Your task to perform on an android device: Open Youtube and go to "Your channel" Image 0: 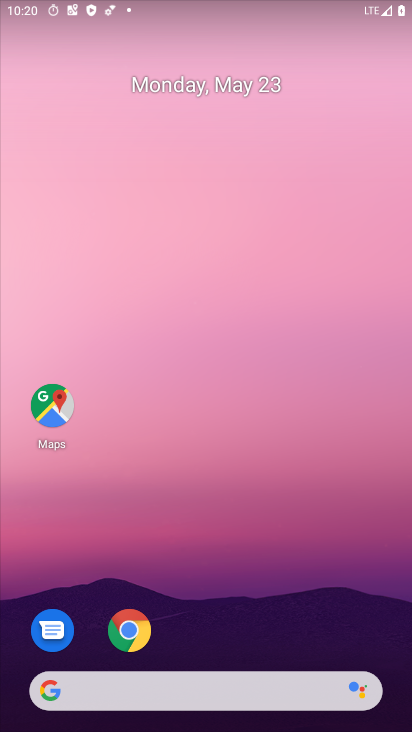
Step 0: drag from (325, 655) to (320, 27)
Your task to perform on an android device: Open Youtube and go to "Your channel" Image 1: 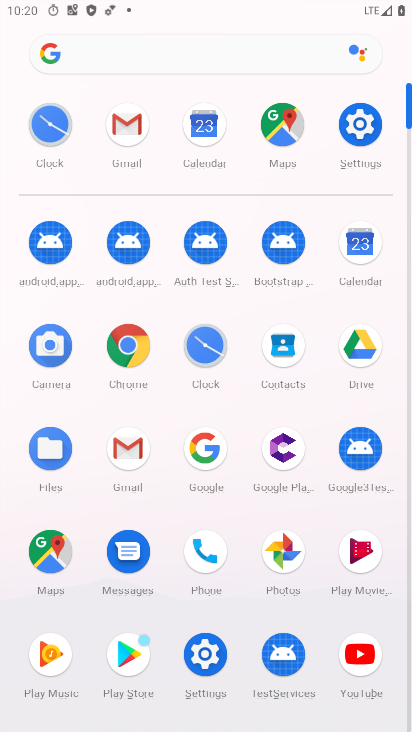
Step 1: click (355, 656)
Your task to perform on an android device: Open Youtube and go to "Your channel" Image 2: 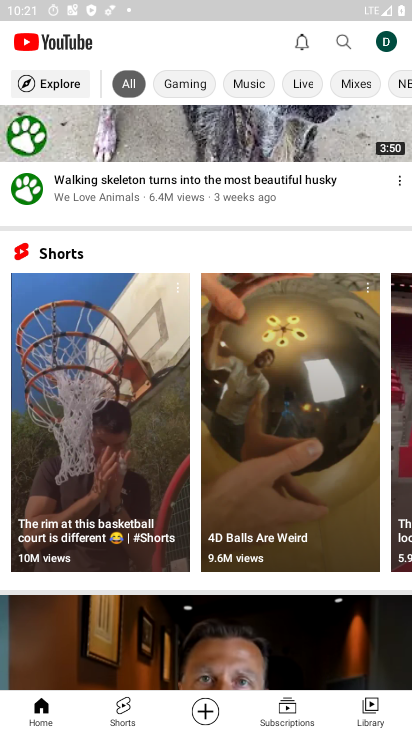
Step 2: click (376, 35)
Your task to perform on an android device: Open Youtube and go to "Your channel" Image 3: 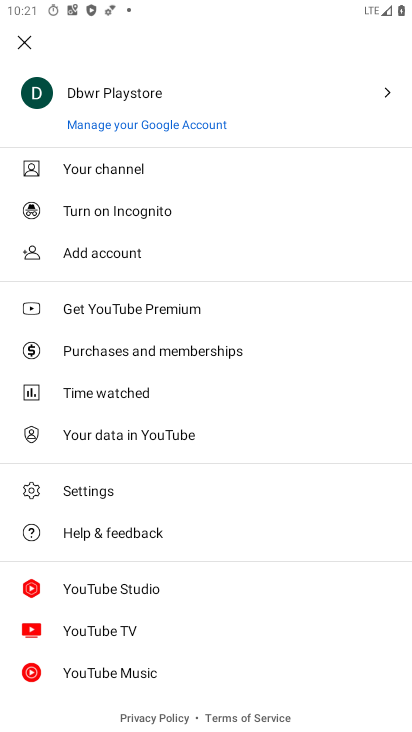
Step 3: click (106, 172)
Your task to perform on an android device: Open Youtube and go to "Your channel" Image 4: 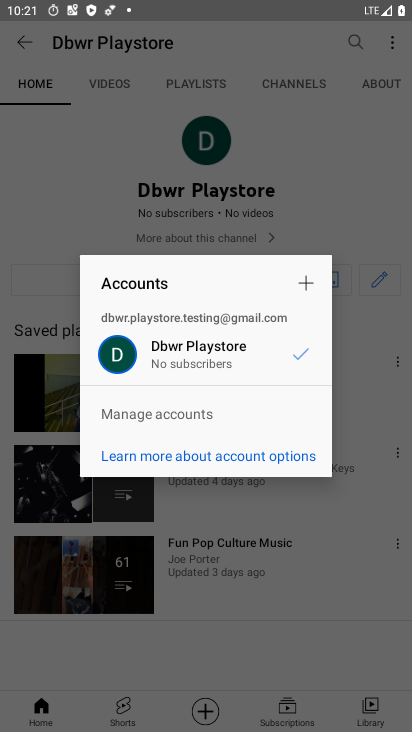
Step 4: click (331, 167)
Your task to perform on an android device: Open Youtube and go to "Your channel" Image 5: 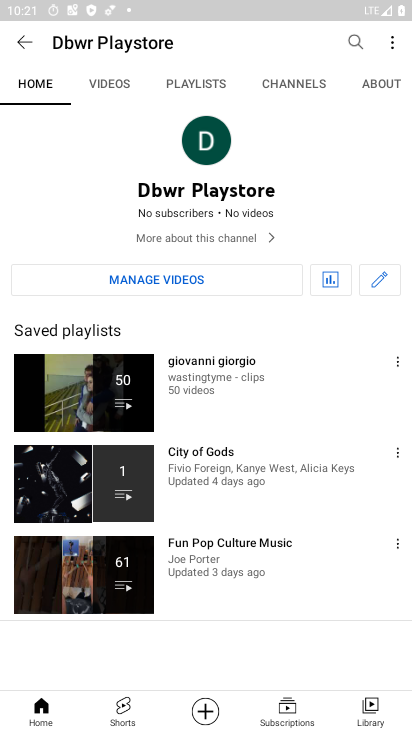
Step 5: task complete